Your task to perform on an android device: show emergency info Image 0: 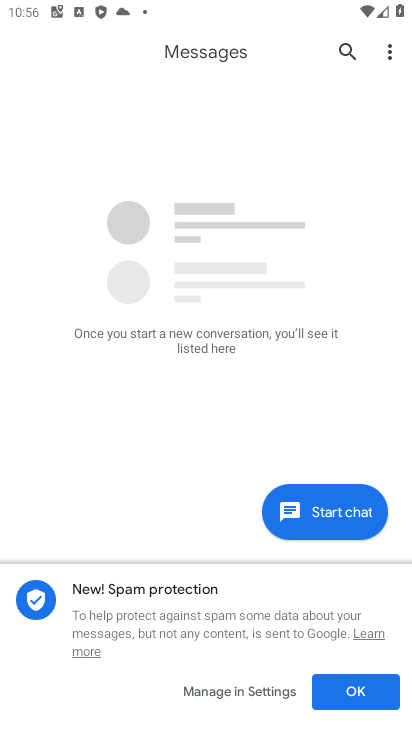
Step 0: press home button
Your task to perform on an android device: show emergency info Image 1: 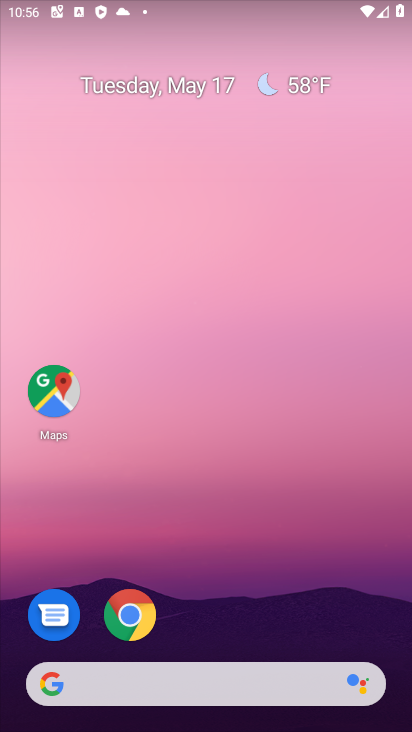
Step 1: drag from (379, 631) to (331, 158)
Your task to perform on an android device: show emergency info Image 2: 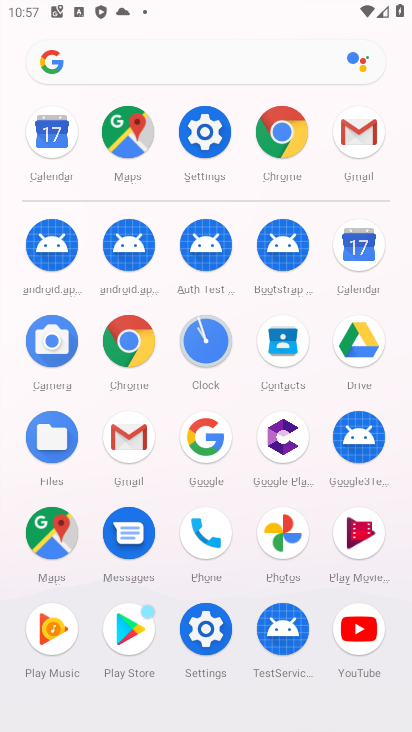
Step 2: click (206, 633)
Your task to perform on an android device: show emergency info Image 3: 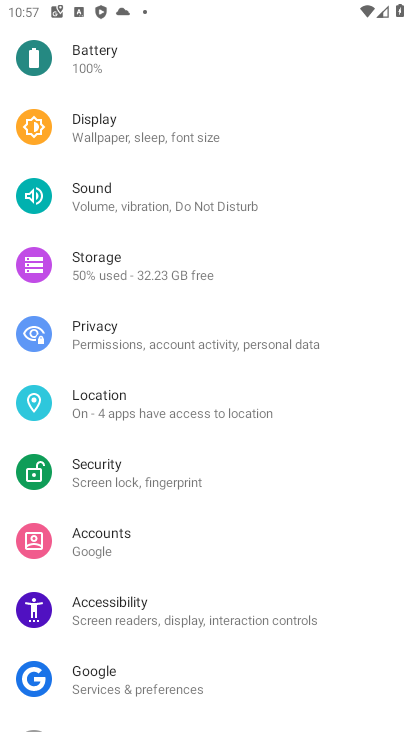
Step 3: drag from (314, 630) to (296, 246)
Your task to perform on an android device: show emergency info Image 4: 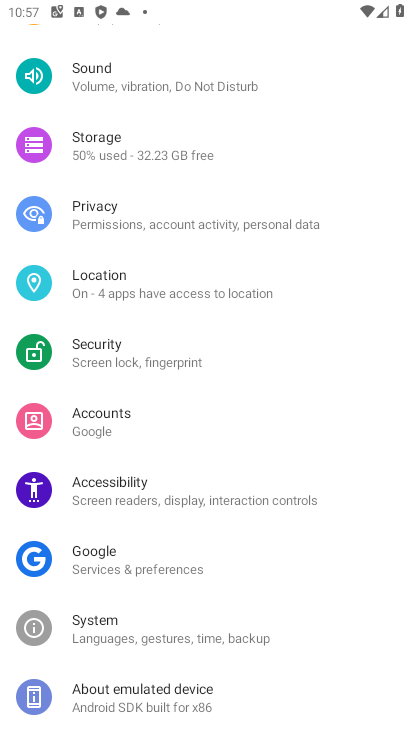
Step 4: click (118, 695)
Your task to perform on an android device: show emergency info Image 5: 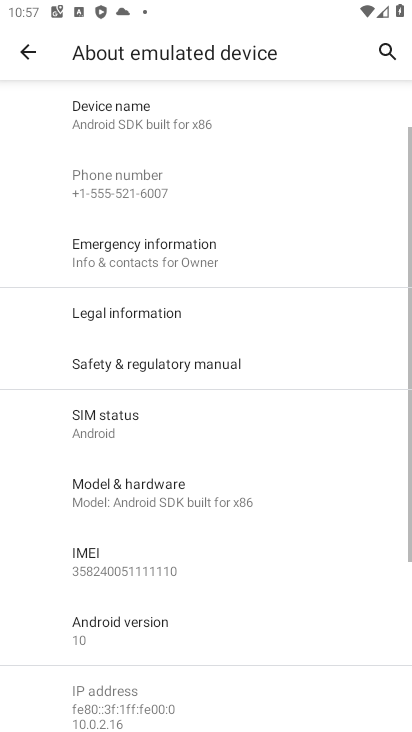
Step 5: click (133, 250)
Your task to perform on an android device: show emergency info Image 6: 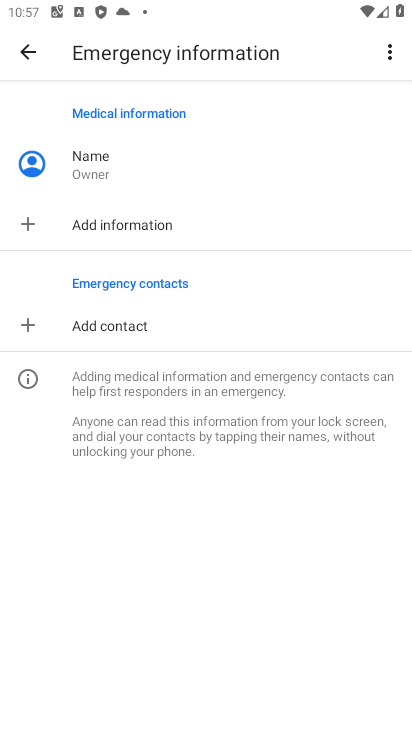
Step 6: task complete